Your task to perform on an android device: turn off notifications in google photos Image 0: 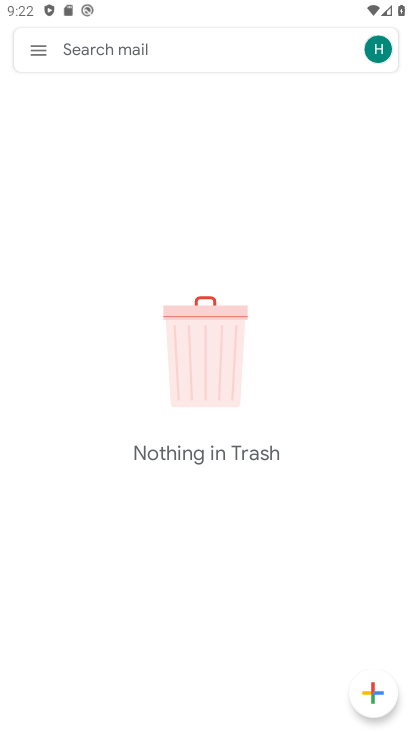
Step 0: press back button
Your task to perform on an android device: turn off notifications in google photos Image 1: 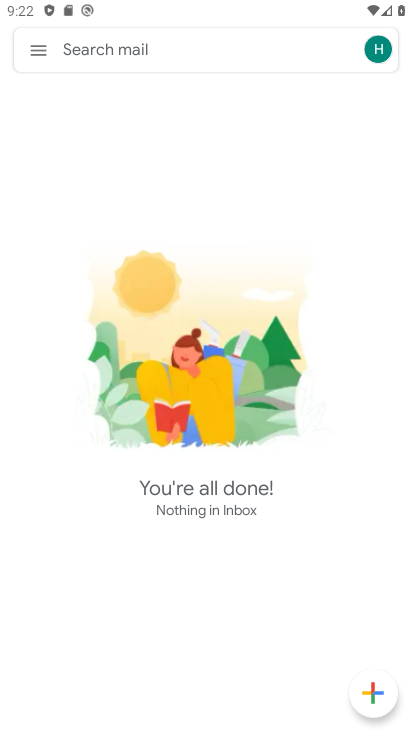
Step 1: press back button
Your task to perform on an android device: turn off notifications in google photos Image 2: 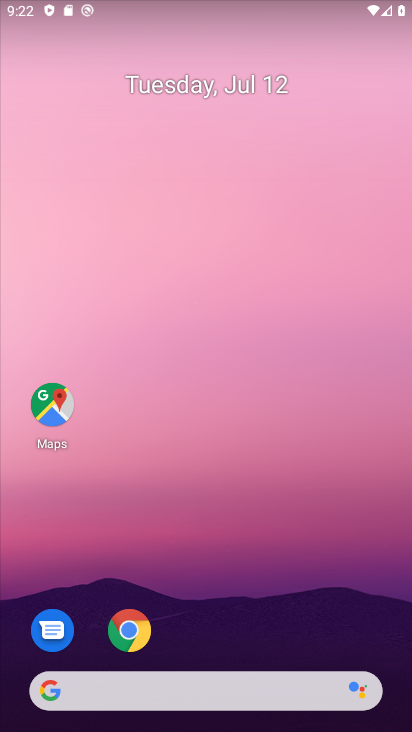
Step 2: drag from (240, 635) to (349, 29)
Your task to perform on an android device: turn off notifications in google photos Image 3: 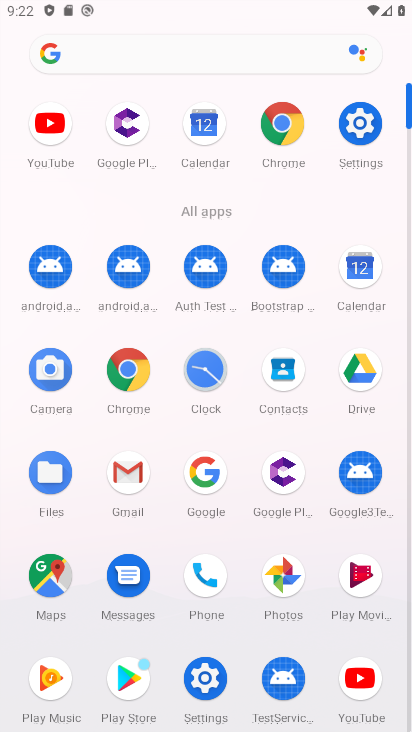
Step 3: click (287, 583)
Your task to perform on an android device: turn off notifications in google photos Image 4: 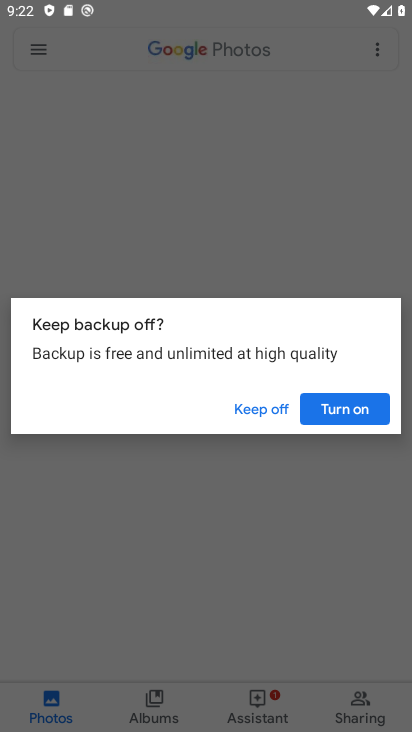
Step 4: click (250, 398)
Your task to perform on an android device: turn off notifications in google photos Image 5: 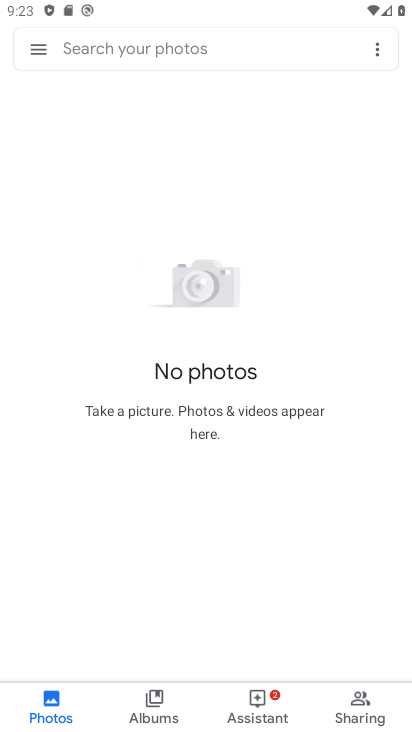
Step 5: click (26, 45)
Your task to perform on an android device: turn off notifications in google photos Image 6: 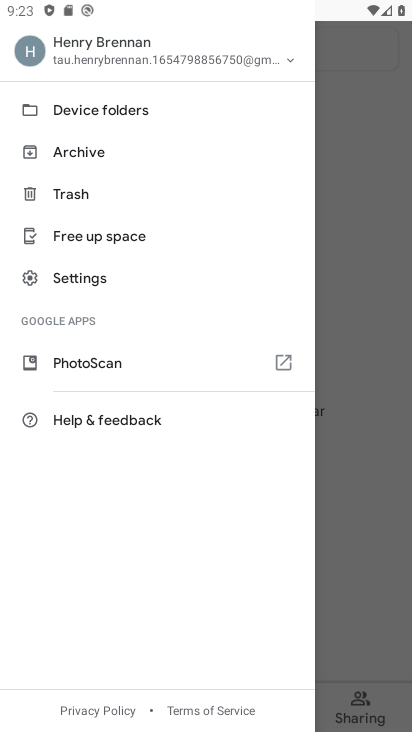
Step 6: click (107, 276)
Your task to perform on an android device: turn off notifications in google photos Image 7: 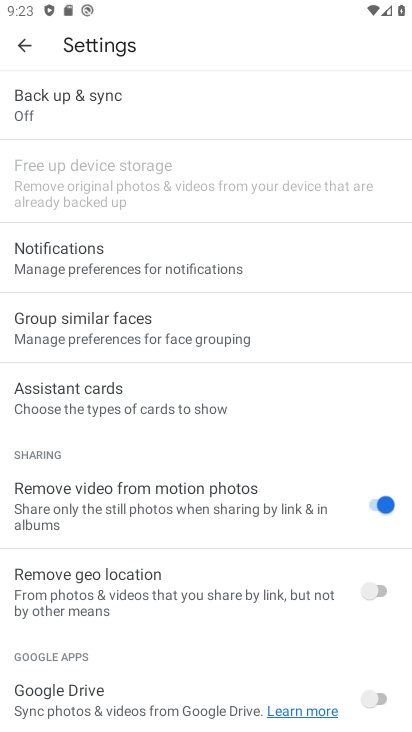
Step 7: drag from (120, 675) to (145, 731)
Your task to perform on an android device: turn off notifications in google photos Image 8: 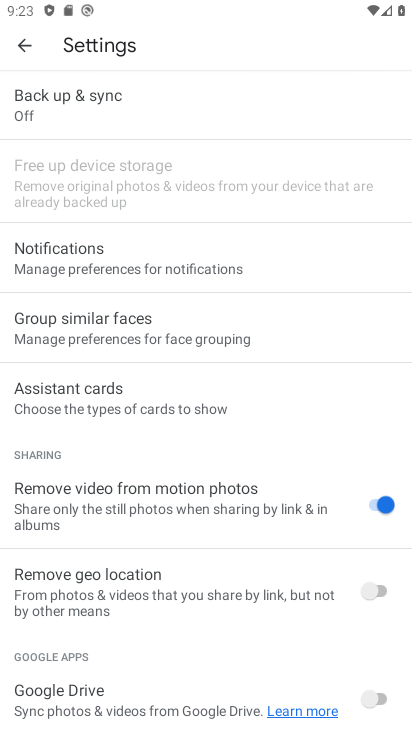
Step 8: click (118, 262)
Your task to perform on an android device: turn off notifications in google photos Image 9: 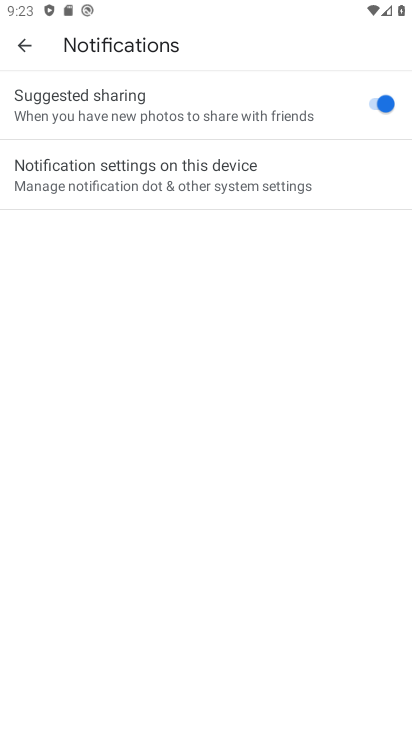
Step 9: click (159, 186)
Your task to perform on an android device: turn off notifications in google photos Image 10: 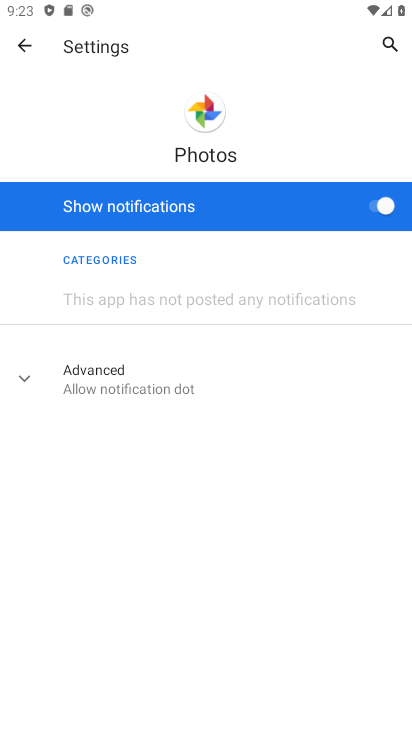
Step 10: click (387, 208)
Your task to perform on an android device: turn off notifications in google photos Image 11: 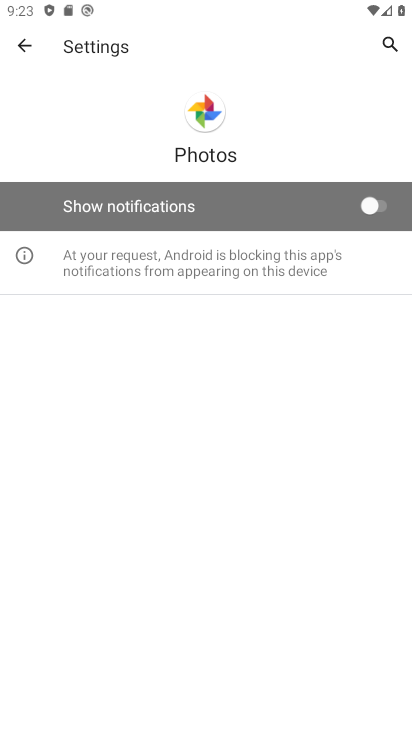
Step 11: task complete